Your task to perform on an android device: What is the speed of a train? Image 0: 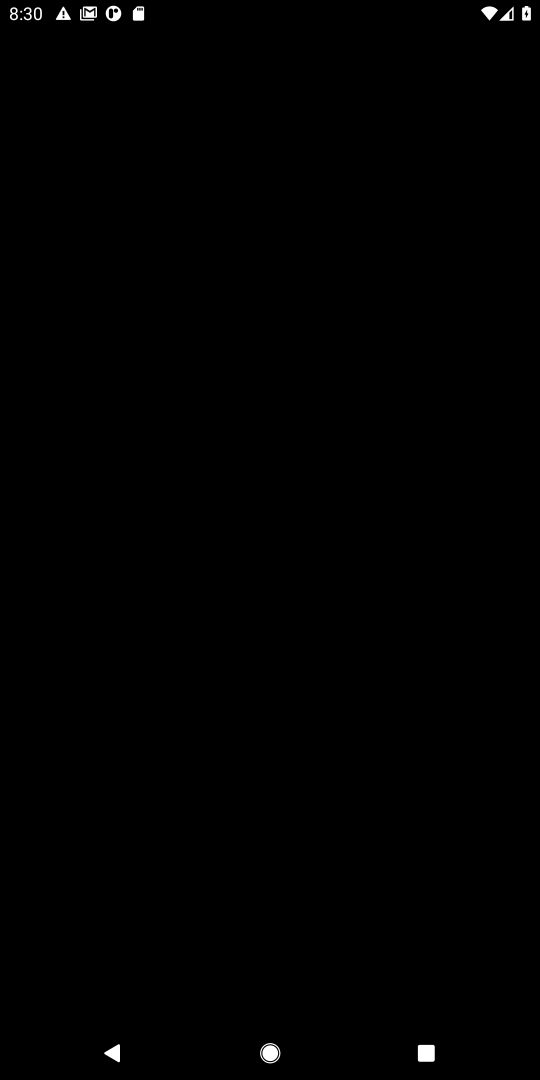
Step 0: press home button
Your task to perform on an android device: What is the speed of a train? Image 1: 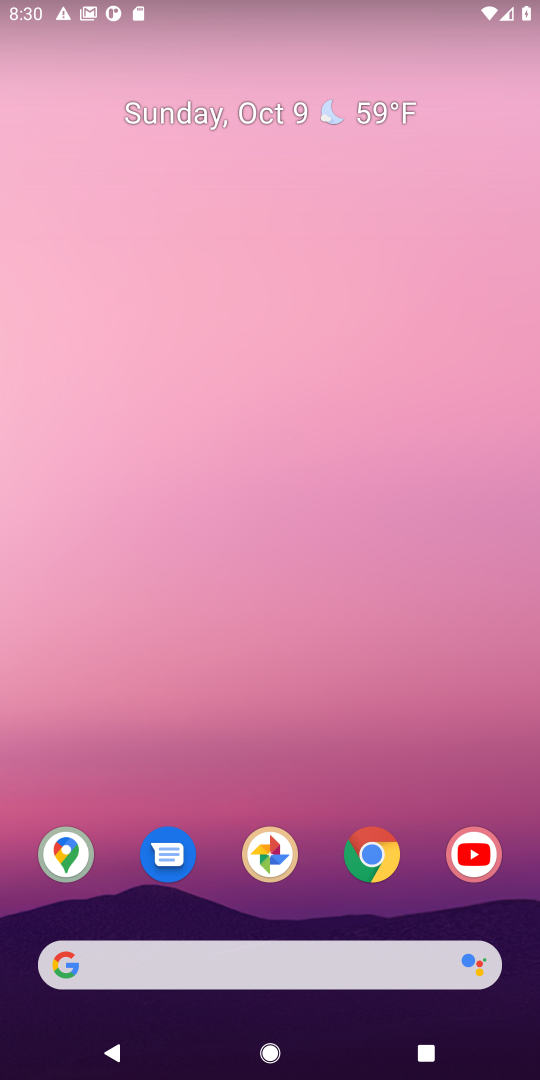
Step 1: drag from (292, 944) to (211, 32)
Your task to perform on an android device: What is the speed of a train? Image 2: 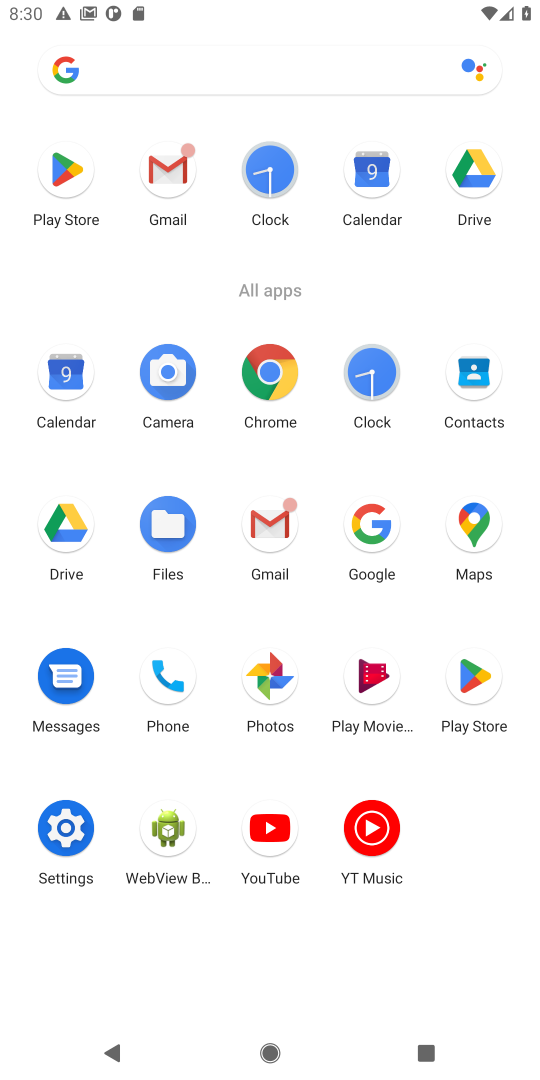
Step 2: click (269, 368)
Your task to perform on an android device: What is the speed of a train? Image 3: 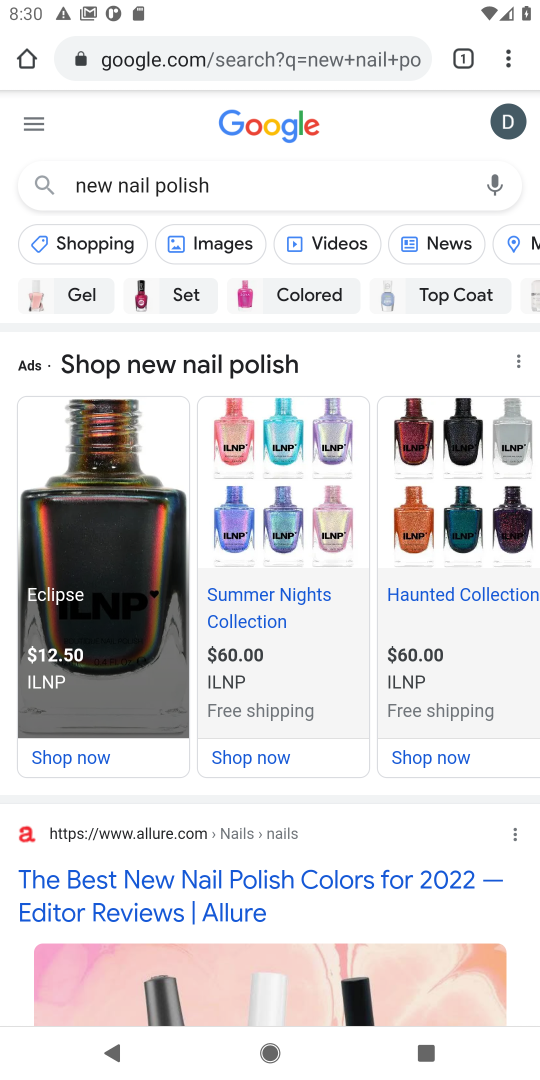
Step 3: click (246, 185)
Your task to perform on an android device: What is the speed of a train? Image 4: 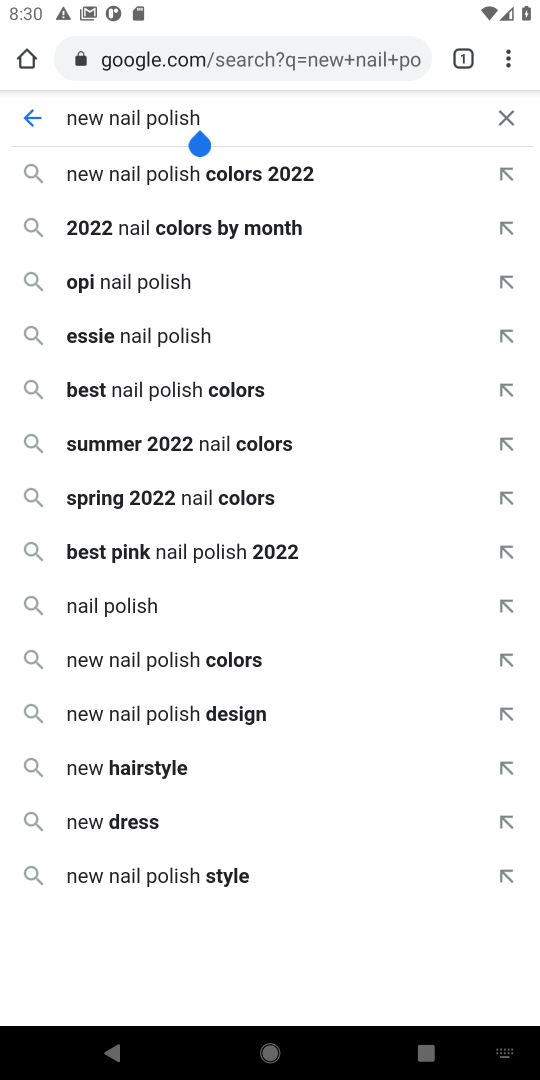
Step 4: click (495, 114)
Your task to perform on an android device: What is the speed of a train? Image 5: 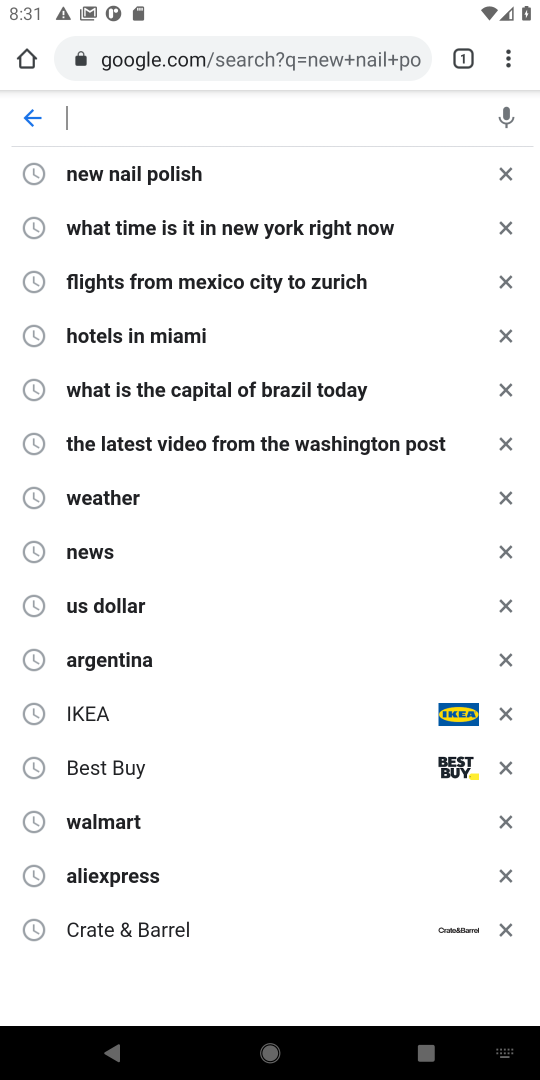
Step 5: type "speed of a train?"
Your task to perform on an android device: What is the speed of a train? Image 6: 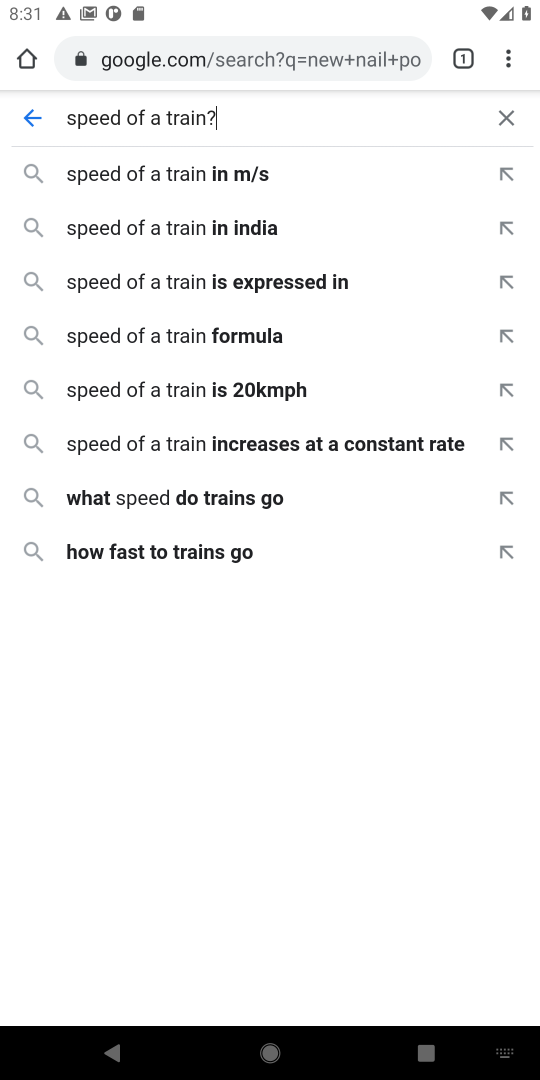
Step 6: click (237, 185)
Your task to perform on an android device: What is the speed of a train? Image 7: 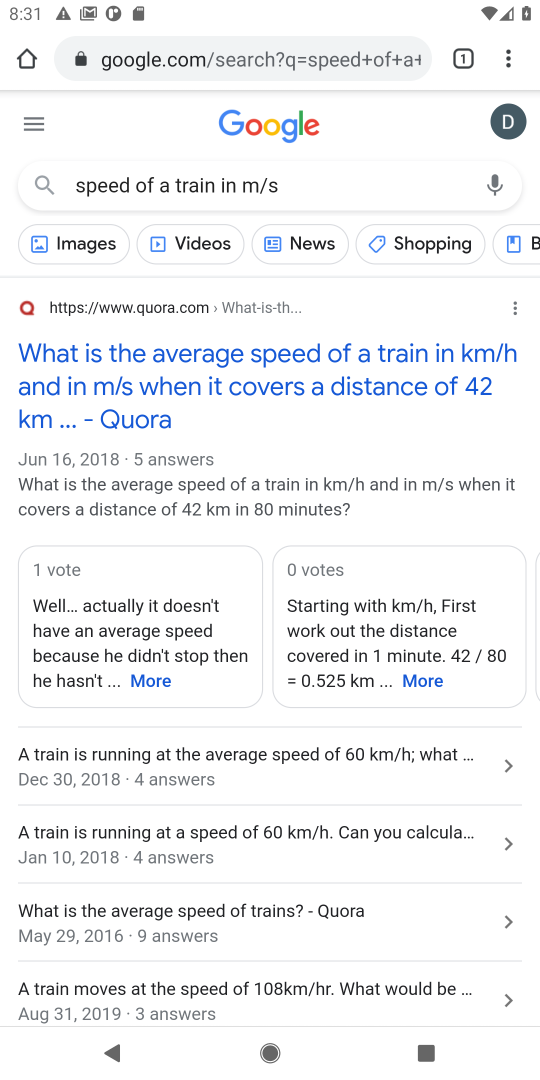
Step 7: drag from (225, 908) to (114, 309)
Your task to perform on an android device: What is the speed of a train? Image 8: 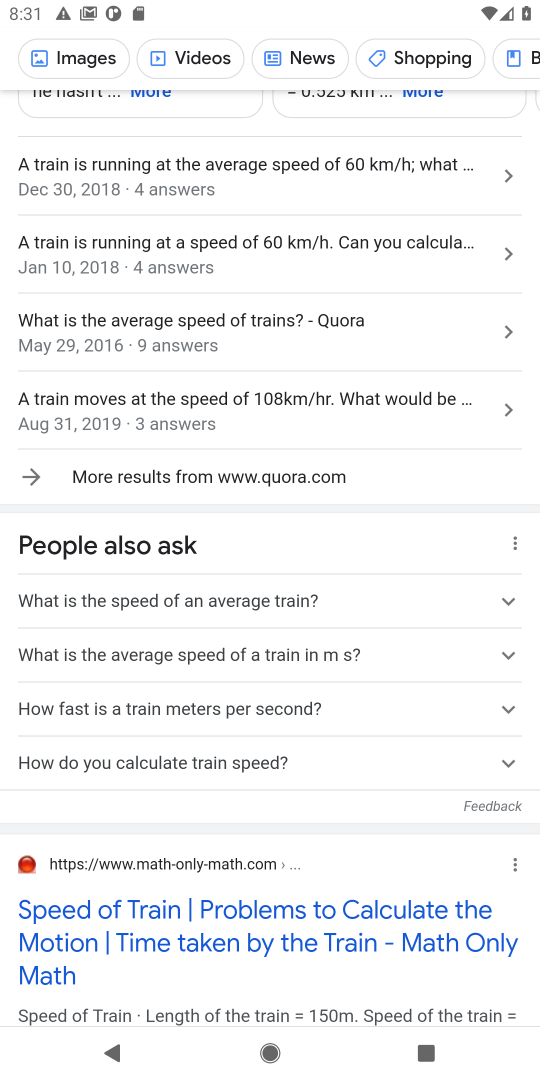
Step 8: click (261, 604)
Your task to perform on an android device: What is the speed of a train? Image 9: 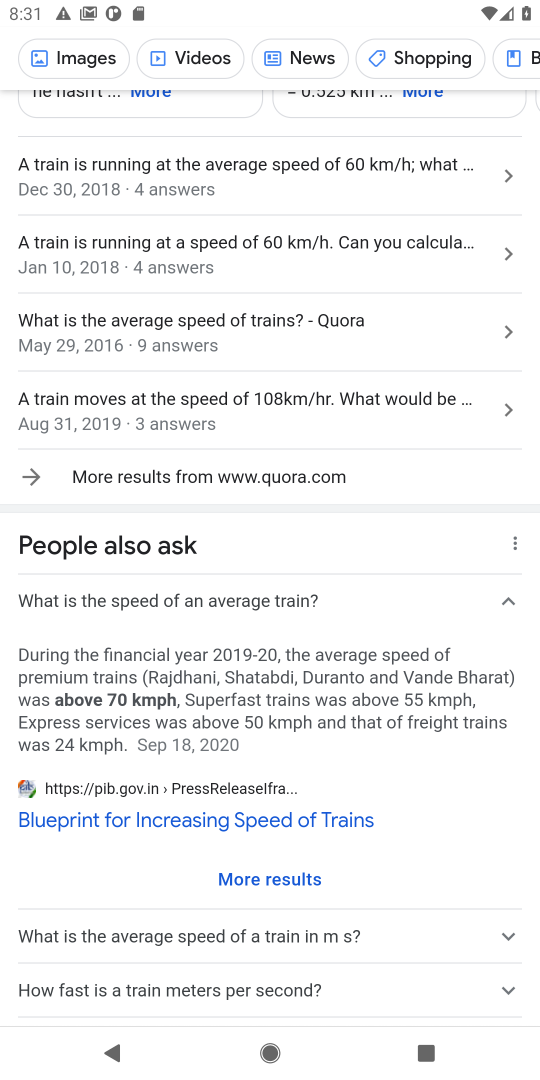
Step 9: task complete